Your task to perform on an android device: Go to Wikipedia Image 0: 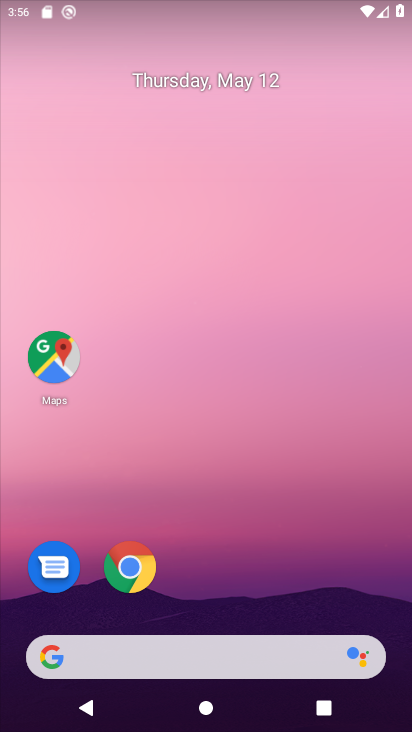
Step 0: drag from (246, 694) to (309, 179)
Your task to perform on an android device: Go to Wikipedia Image 1: 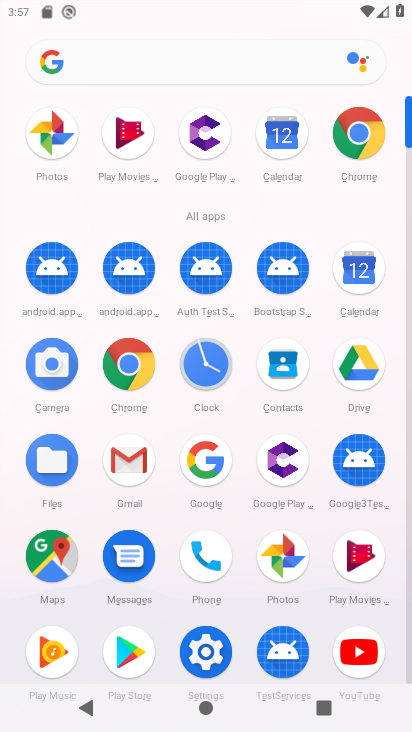
Step 1: click (358, 136)
Your task to perform on an android device: Go to Wikipedia Image 2: 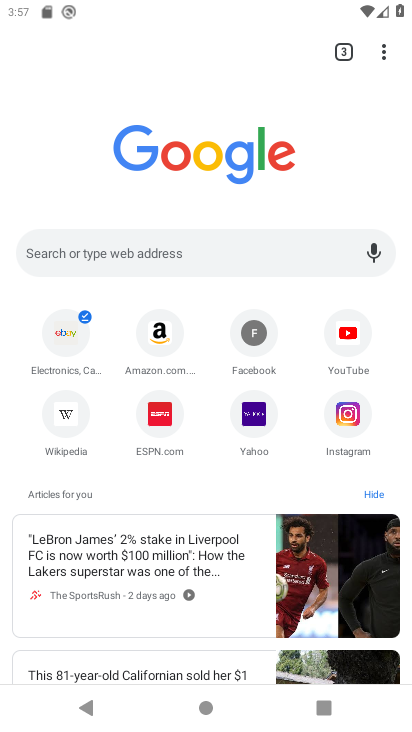
Step 2: click (76, 409)
Your task to perform on an android device: Go to Wikipedia Image 3: 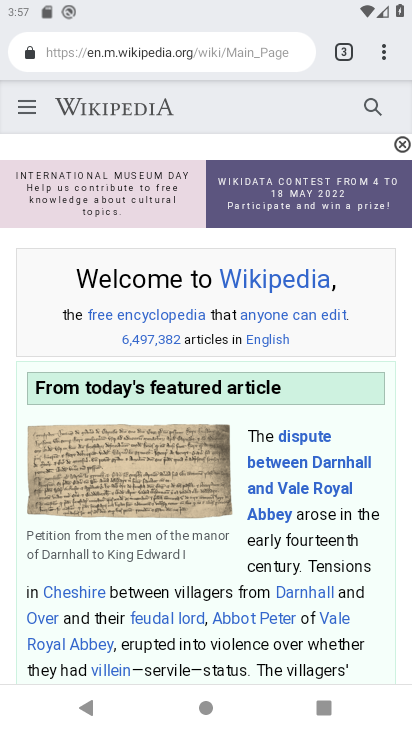
Step 3: task complete